Your task to perform on an android device: Open the calendar and show me this week's events? Image 0: 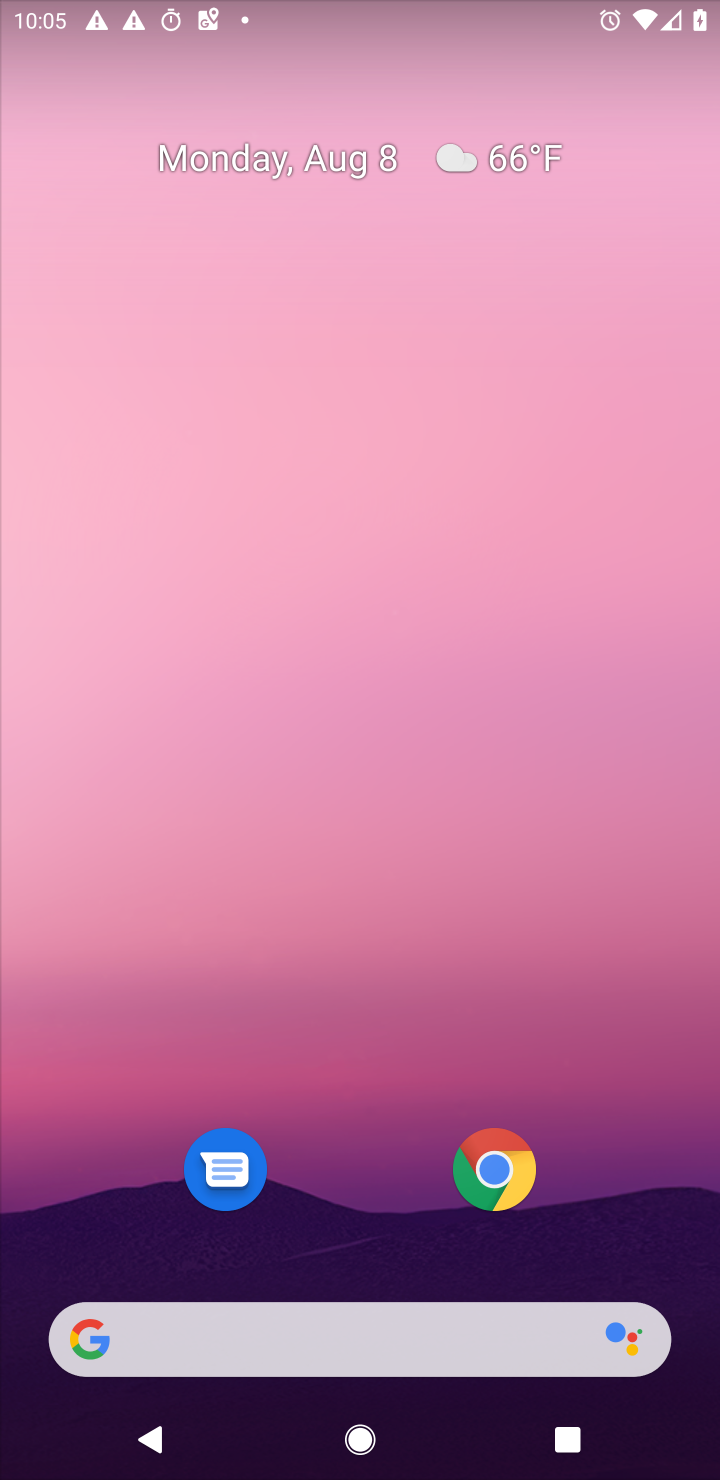
Step 0: drag from (389, 1112) to (446, 27)
Your task to perform on an android device: Open the calendar and show me this week's events? Image 1: 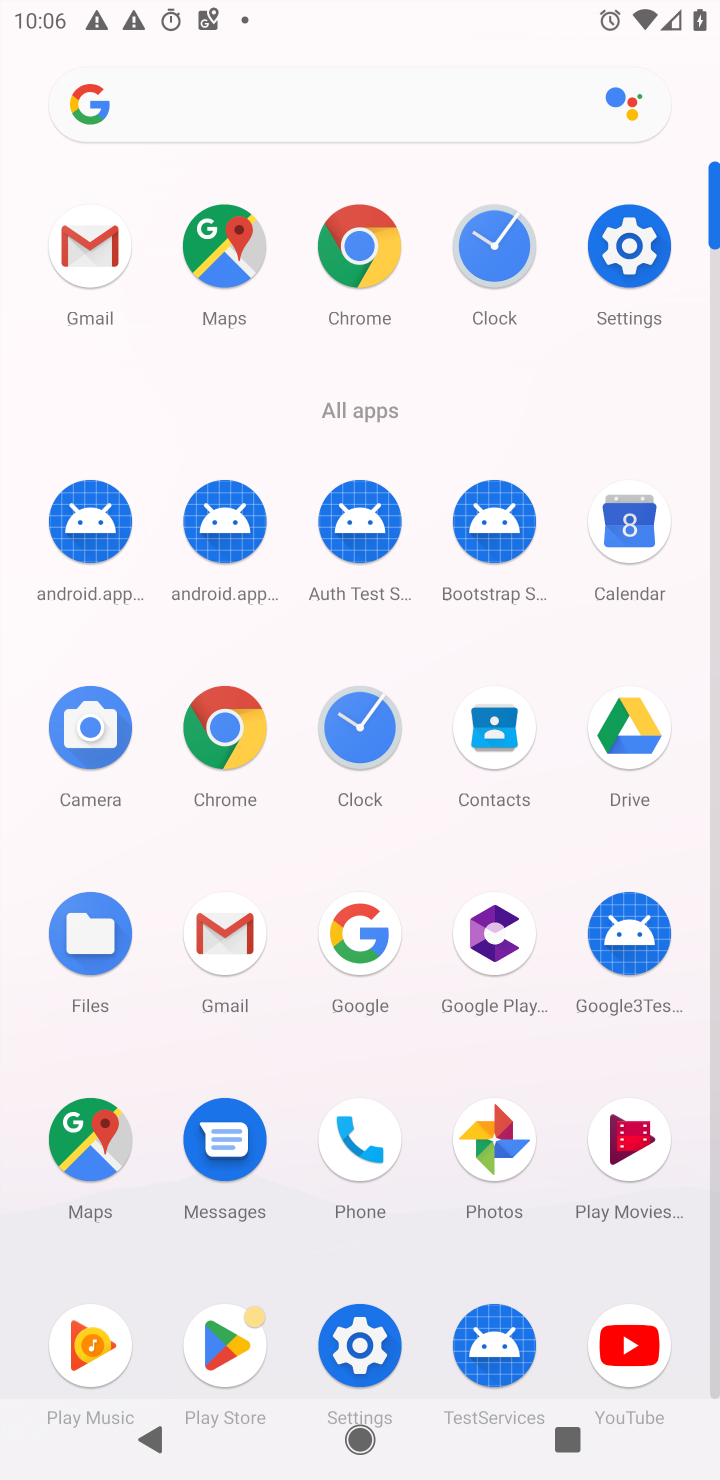
Step 1: click (621, 538)
Your task to perform on an android device: Open the calendar and show me this week's events? Image 2: 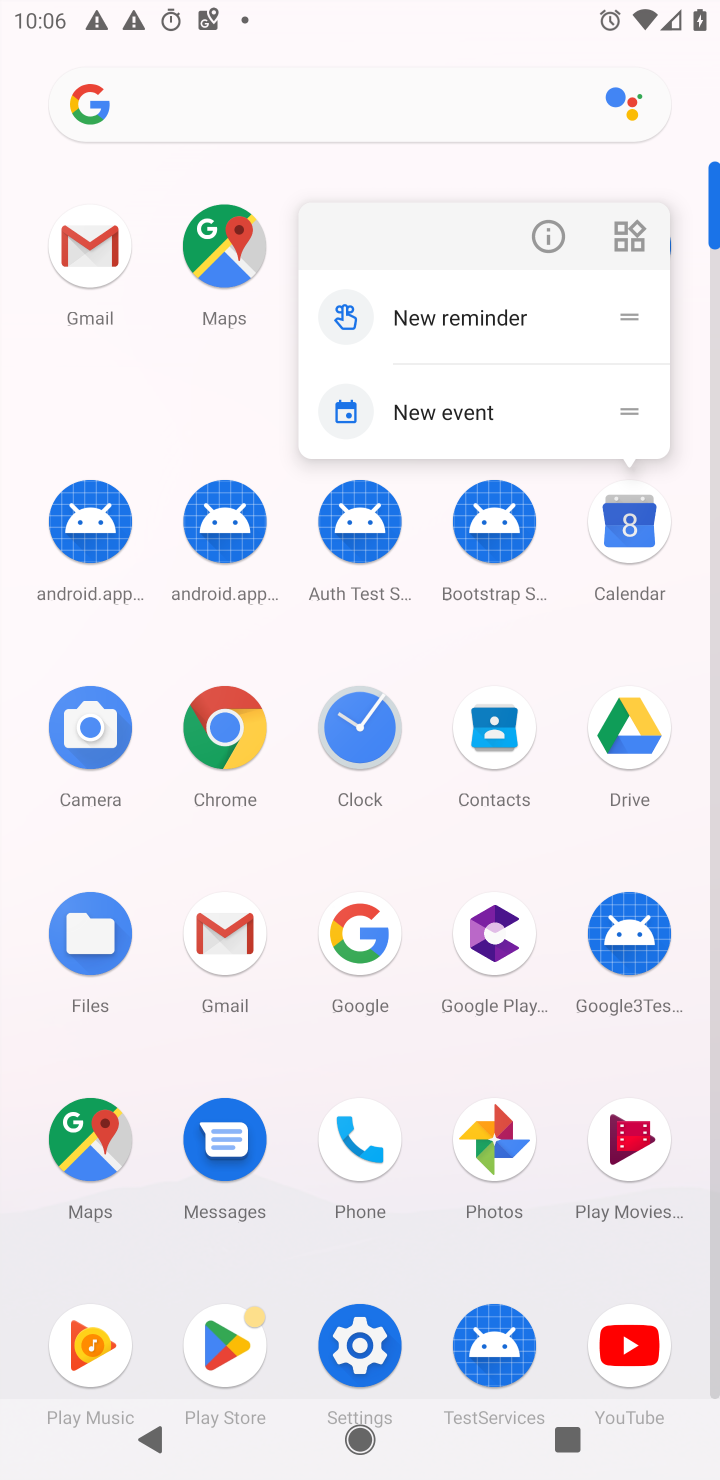
Step 2: click (654, 526)
Your task to perform on an android device: Open the calendar and show me this week's events? Image 3: 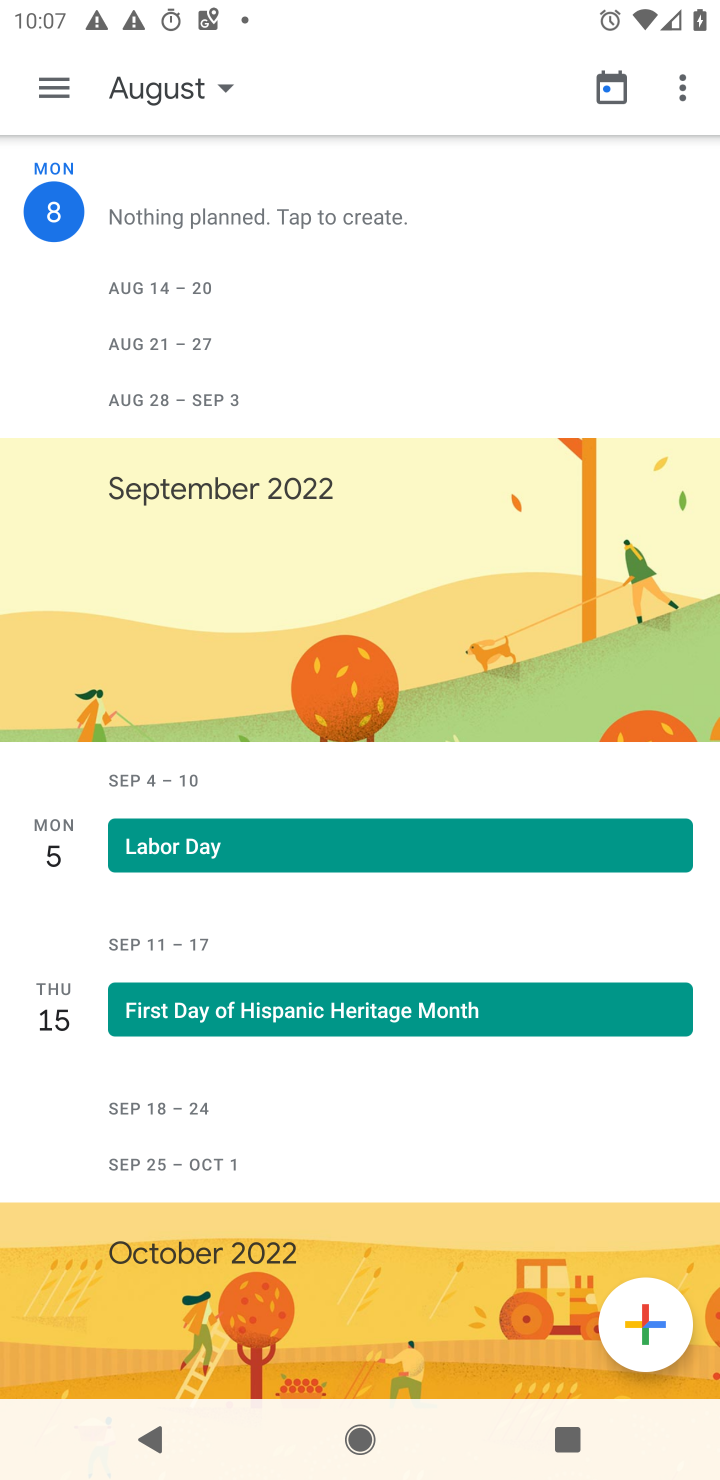
Step 3: task complete